Your task to perform on an android device: Open Chrome and go to the settings page Image 0: 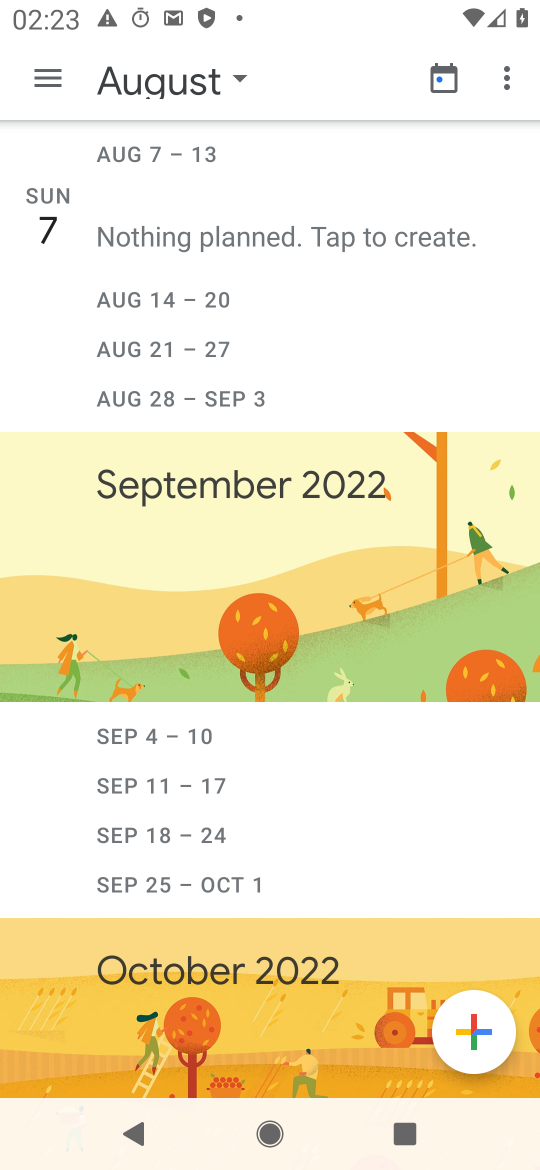
Step 0: press home button
Your task to perform on an android device: Open Chrome and go to the settings page Image 1: 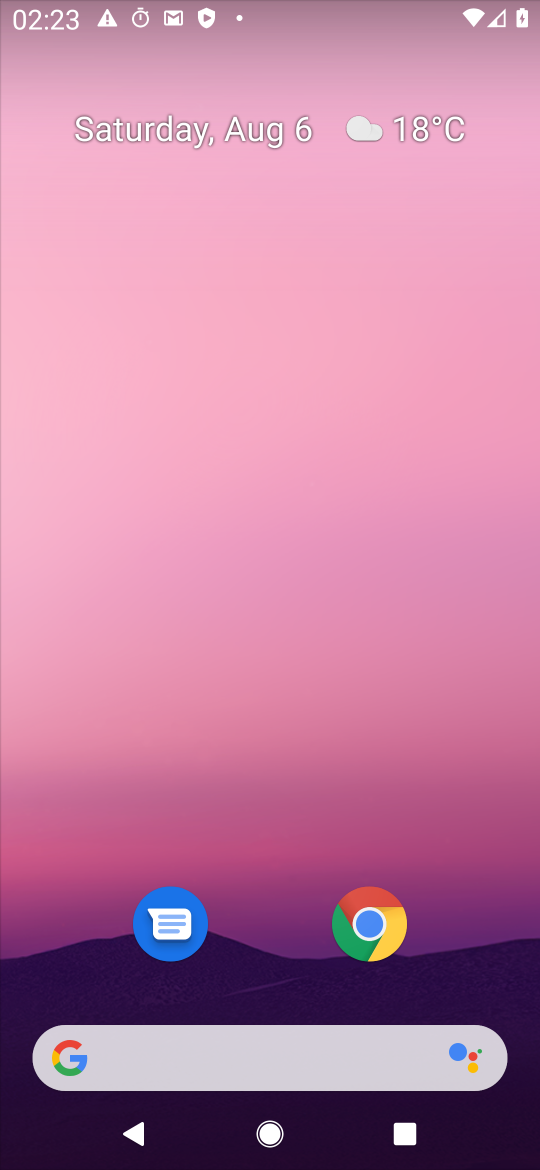
Step 1: drag from (275, 1038) to (449, 23)
Your task to perform on an android device: Open Chrome and go to the settings page Image 2: 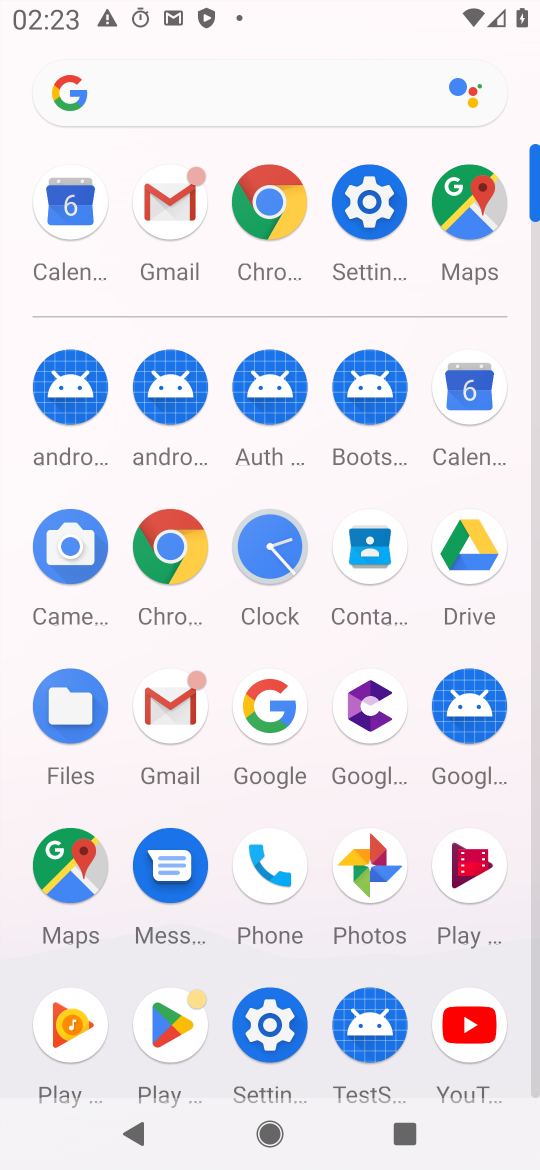
Step 2: click (159, 549)
Your task to perform on an android device: Open Chrome and go to the settings page Image 3: 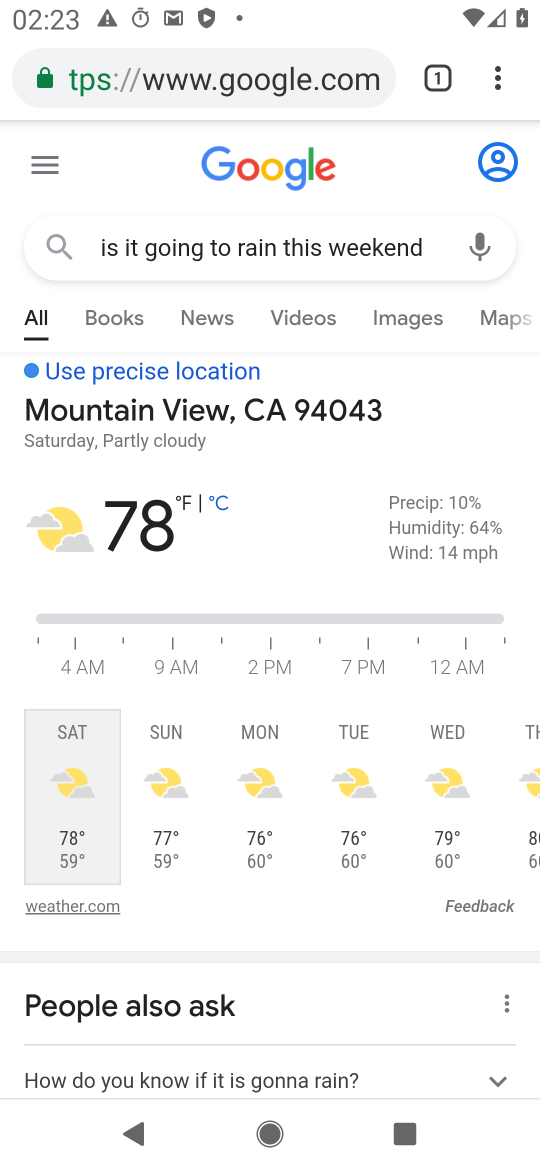
Step 3: click (498, 78)
Your task to perform on an android device: Open Chrome and go to the settings page Image 4: 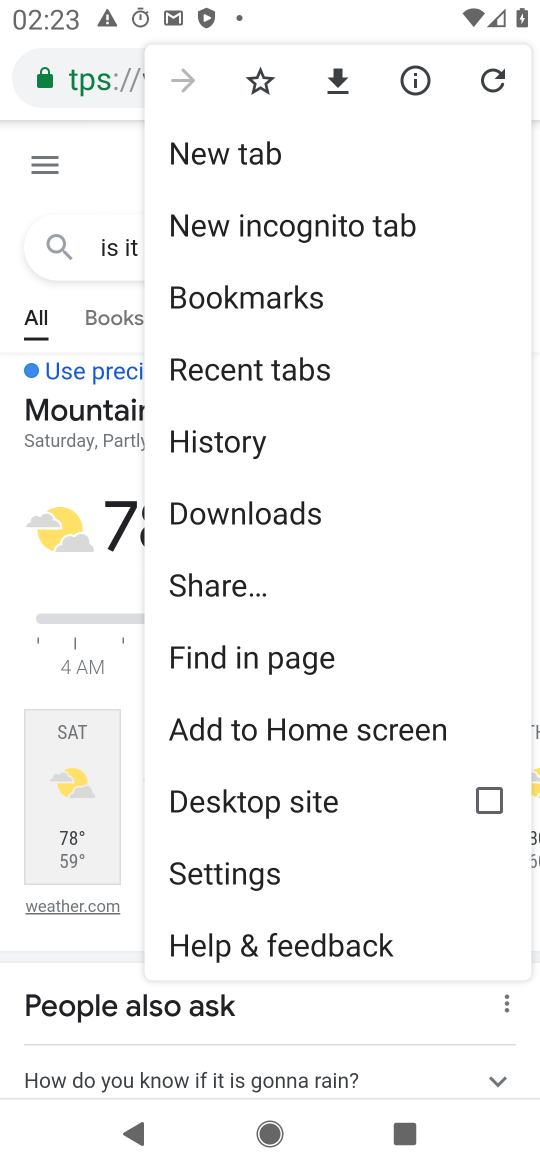
Step 4: click (304, 892)
Your task to perform on an android device: Open Chrome and go to the settings page Image 5: 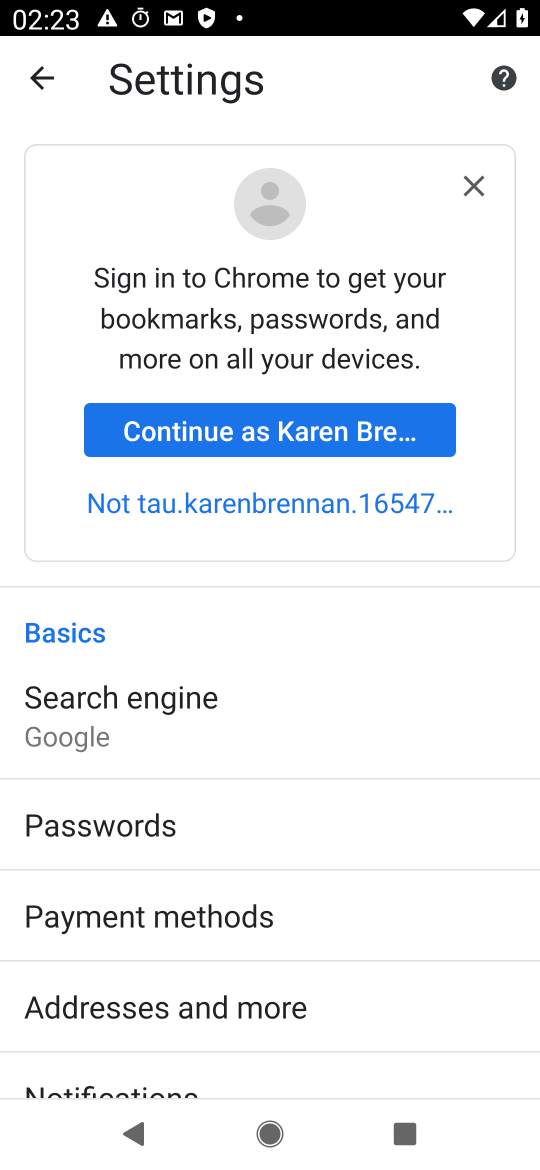
Step 5: task complete